Your task to perform on an android device: turn notification dots on Image 0: 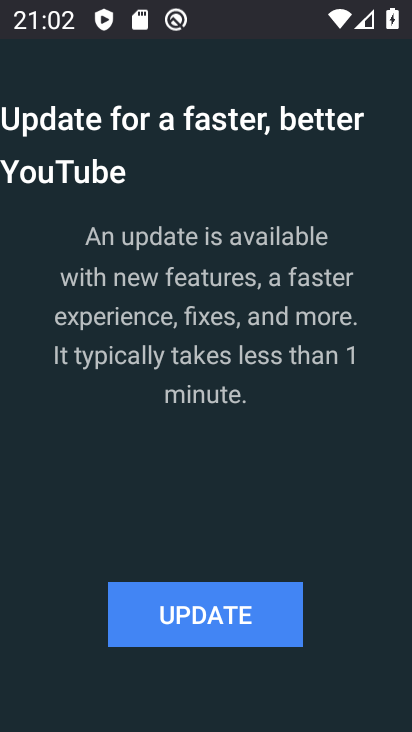
Step 0: press home button
Your task to perform on an android device: turn notification dots on Image 1: 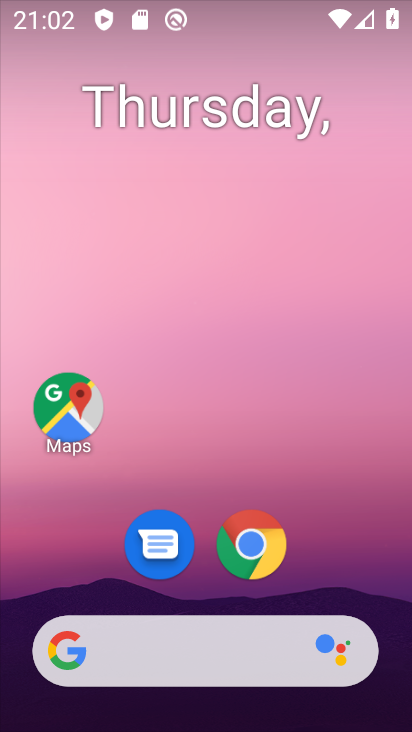
Step 1: drag from (245, 705) to (303, 15)
Your task to perform on an android device: turn notification dots on Image 2: 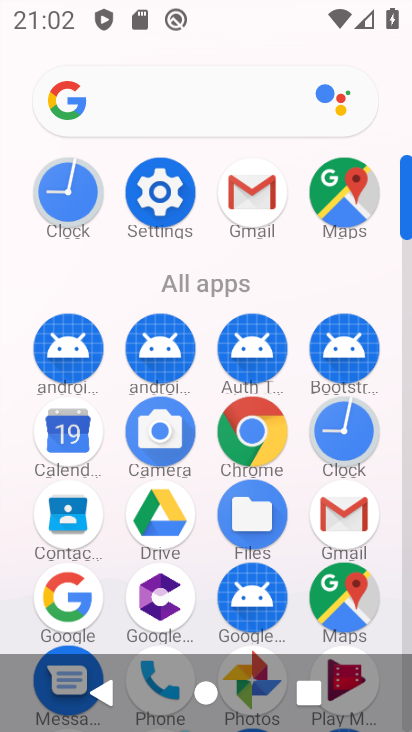
Step 2: click (168, 193)
Your task to perform on an android device: turn notification dots on Image 3: 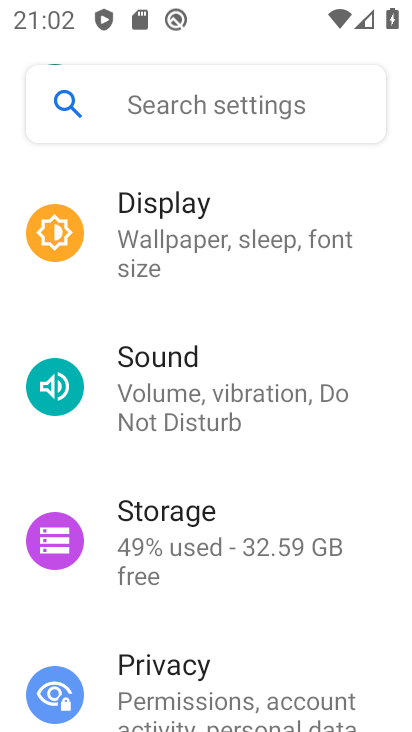
Step 3: drag from (244, 550) to (243, 1)
Your task to perform on an android device: turn notification dots on Image 4: 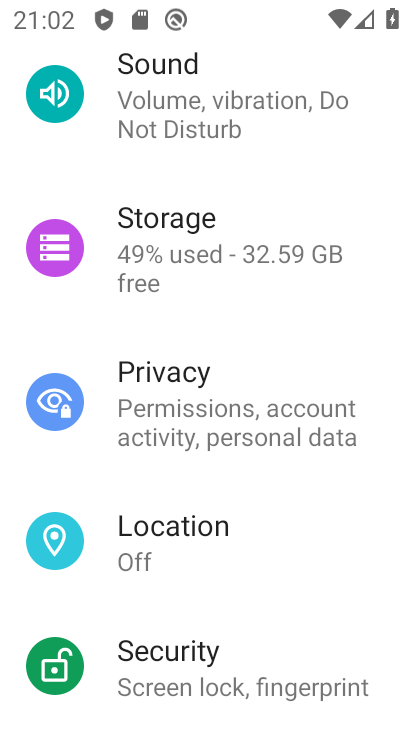
Step 4: drag from (277, 234) to (215, 710)
Your task to perform on an android device: turn notification dots on Image 5: 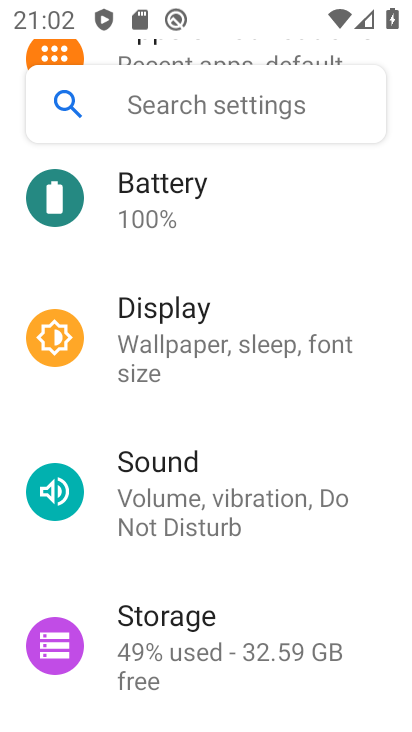
Step 5: drag from (320, 233) to (252, 714)
Your task to perform on an android device: turn notification dots on Image 6: 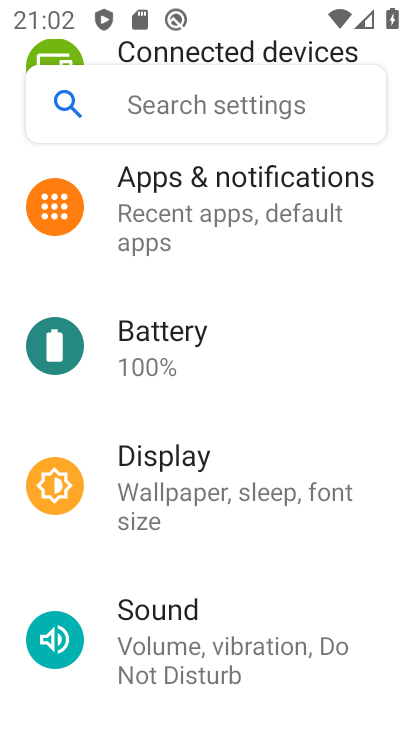
Step 6: click (294, 208)
Your task to perform on an android device: turn notification dots on Image 7: 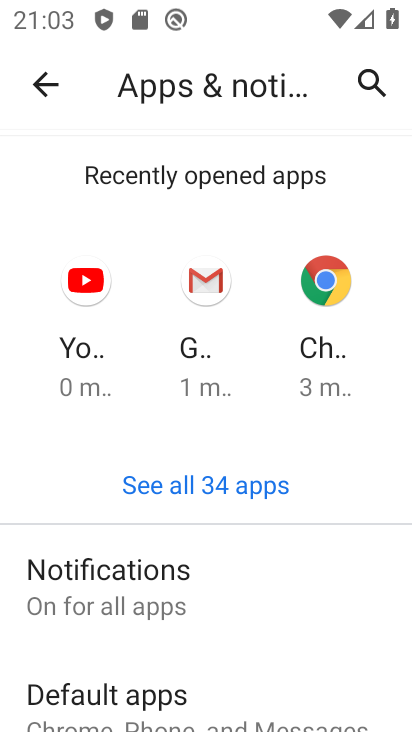
Step 7: click (257, 565)
Your task to perform on an android device: turn notification dots on Image 8: 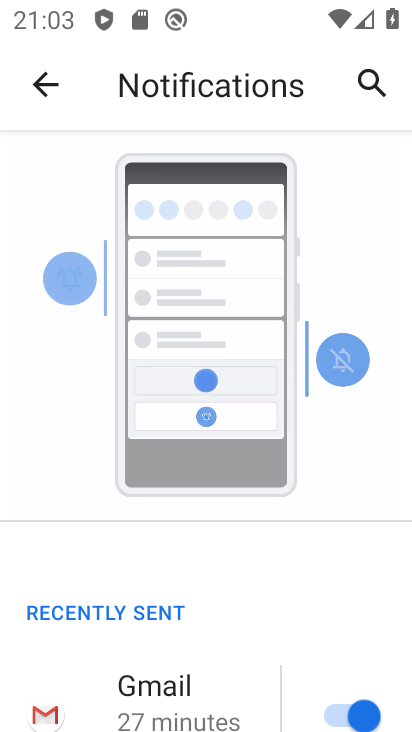
Step 8: drag from (250, 652) to (175, 74)
Your task to perform on an android device: turn notification dots on Image 9: 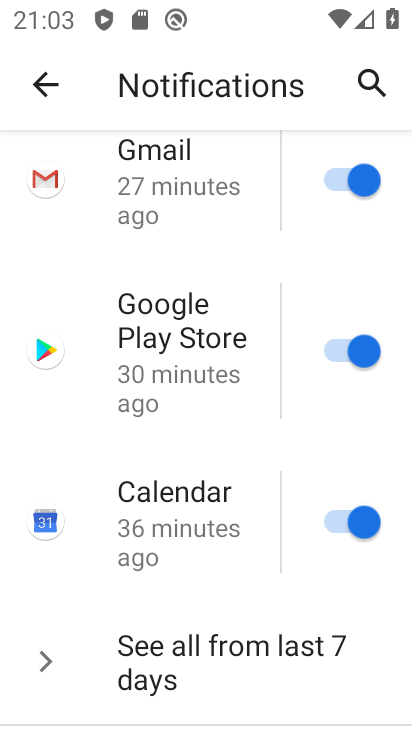
Step 9: drag from (246, 676) to (199, 159)
Your task to perform on an android device: turn notification dots on Image 10: 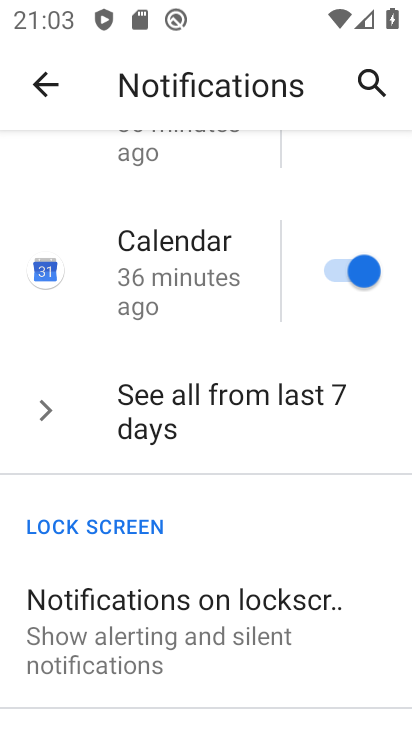
Step 10: drag from (272, 617) to (211, 147)
Your task to perform on an android device: turn notification dots on Image 11: 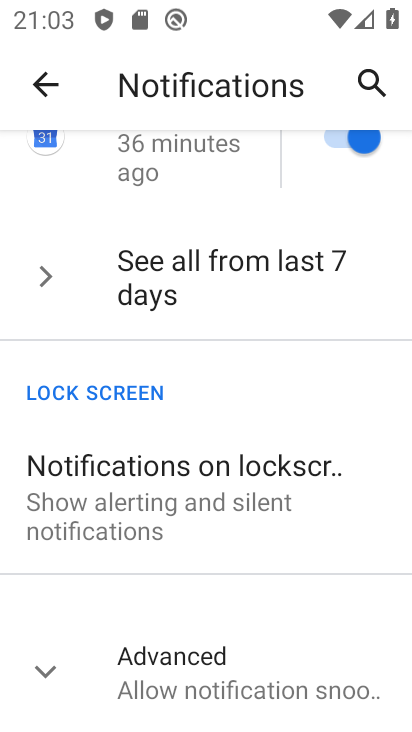
Step 11: click (257, 685)
Your task to perform on an android device: turn notification dots on Image 12: 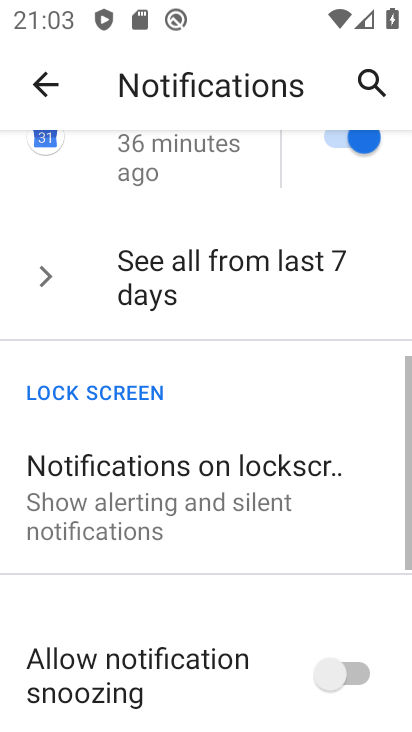
Step 12: task complete